Your task to perform on an android device: Go to internet settings Image 0: 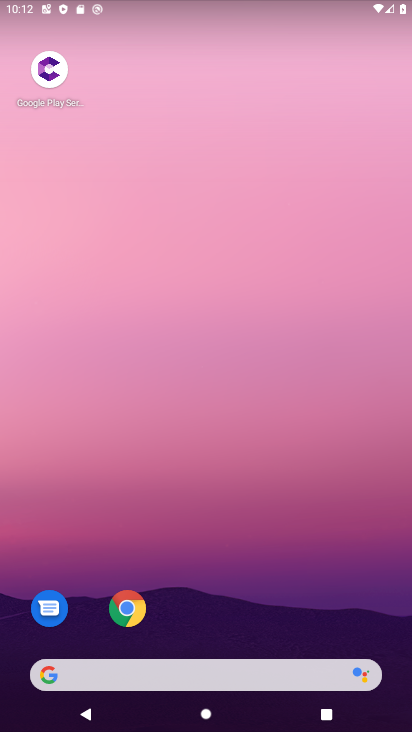
Step 0: drag from (235, 620) to (388, 45)
Your task to perform on an android device: Go to internet settings Image 1: 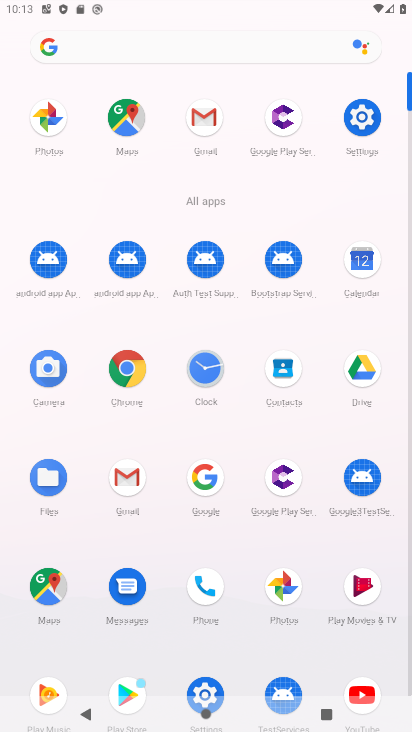
Step 1: click (353, 125)
Your task to perform on an android device: Go to internet settings Image 2: 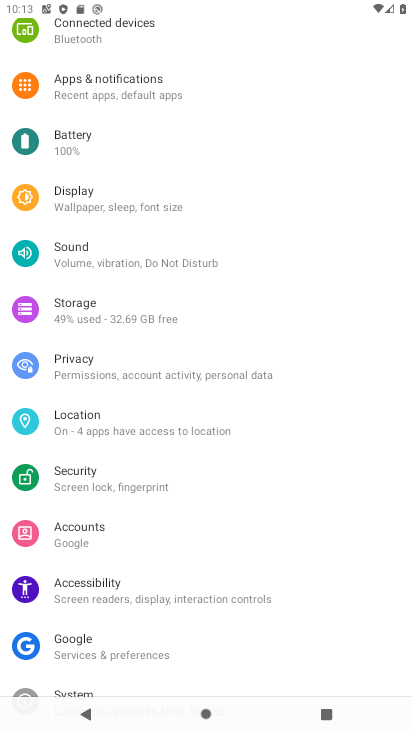
Step 2: drag from (190, 88) to (203, 326)
Your task to perform on an android device: Go to internet settings Image 3: 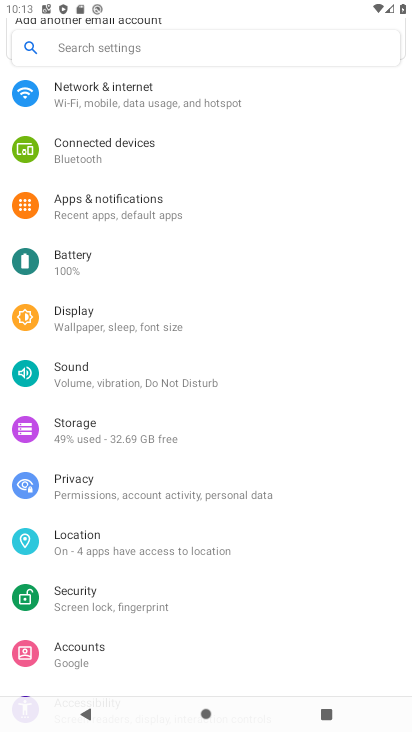
Step 3: click (226, 107)
Your task to perform on an android device: Go to internet settings Image 4: 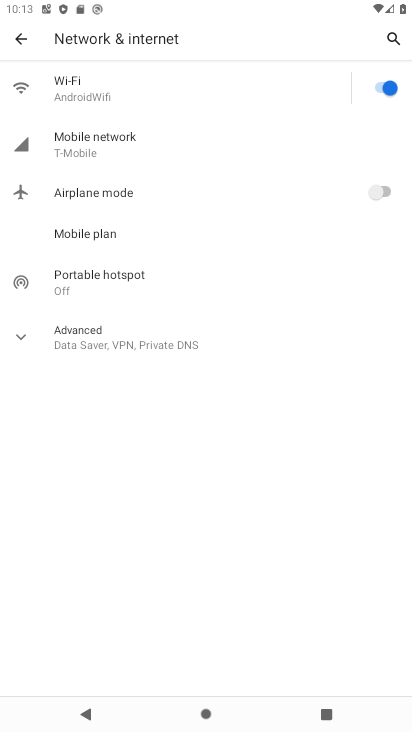
Step 4: click (106, 152)
Your task to perform on an android device: Go to internet settings Image 5: 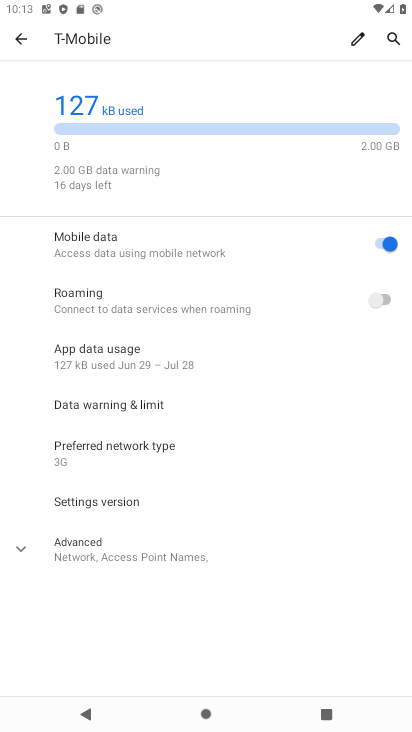
Step 5: task complete